Your task to perform on an android device: Go to CNN.com Image 0: 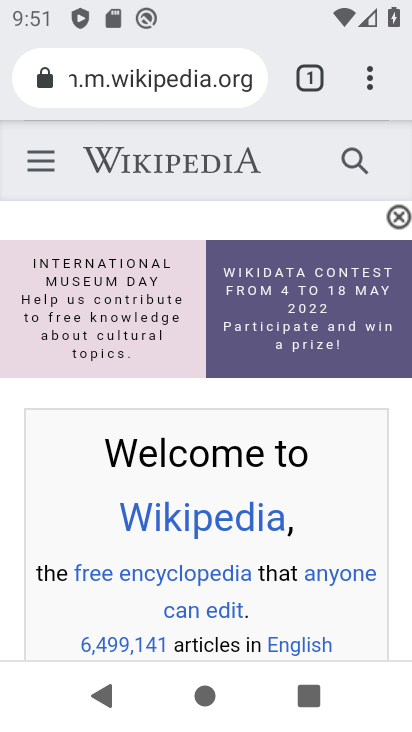
Step 0: click (146, 73)
Your task to perform on an android device: Go to CNN.com Image 1: 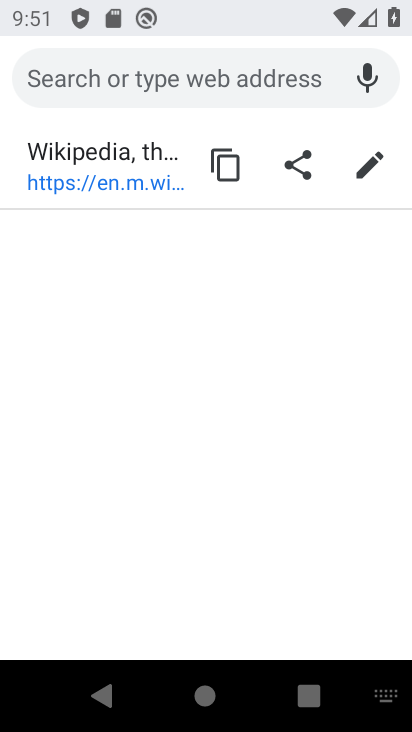
Step 1: type "cnn.com"
Your task to perform on an android device: Go to CNN.com Image 2: 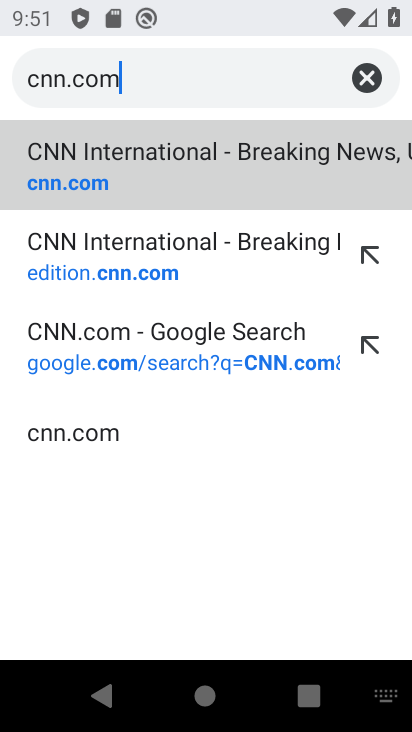
Step 2: click (94, 157)
Your task to perform on an android device: Go to CNN.com Image 3: 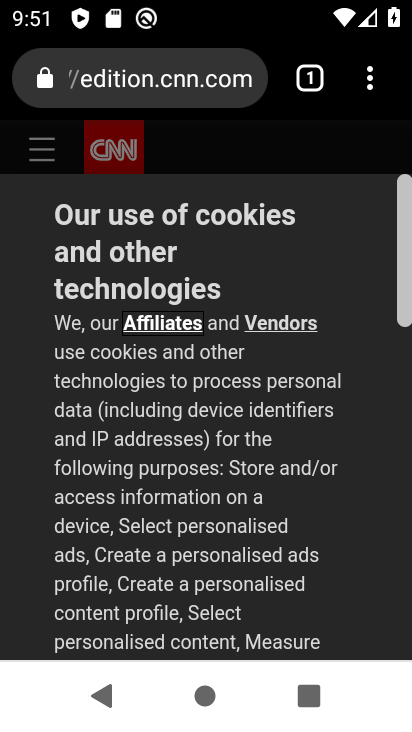
Step 3: task complete